Your task to perform on an android device: install app "Messenger Lite" Image 0: 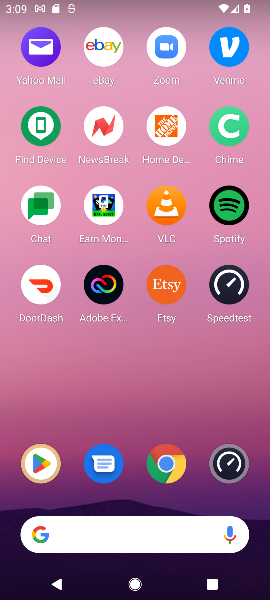
Step 0: press home button
Your task to perform on an android device: install app "Messenger Lite" Image 1: 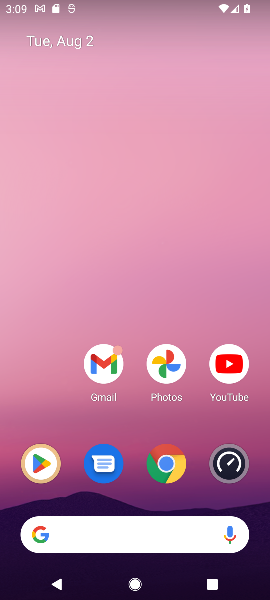
Step 1: click (38, 459)
Your task to perform on an android device: install app "Messenger Lite" Image 2: 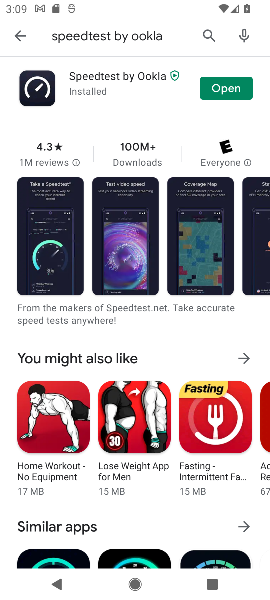
Step 2: click (206, 31)
Your task to perform on an android device: install app "Messenger Lite" Image 3: 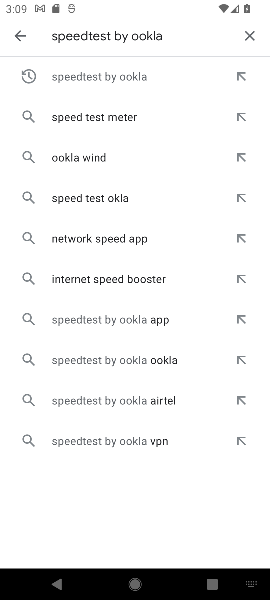
Step 3: click (245, 37)
Your task to perform on an android device: install app "Messenger Lite" Image 4: 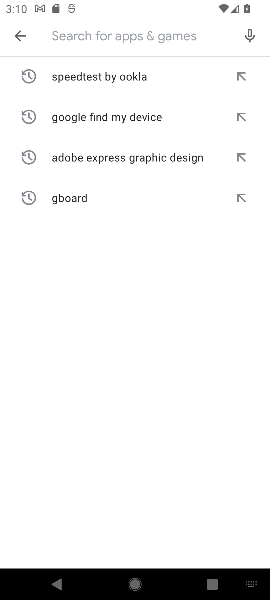
Step 4: type "Messenger Lite"
Your task to perform on an android device: install app "Messenger Lite" Image 5: 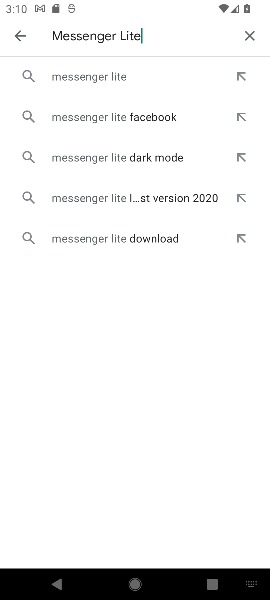
Step 5: click (83, 80)
Your task to perform on an android device: install app "Messenger Lite" Image 6: 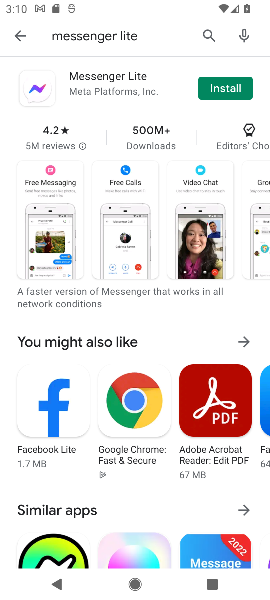
Step 6: click (234, 91)
Your task to perform on an android device: install app "Messenger Lite" Image 7: 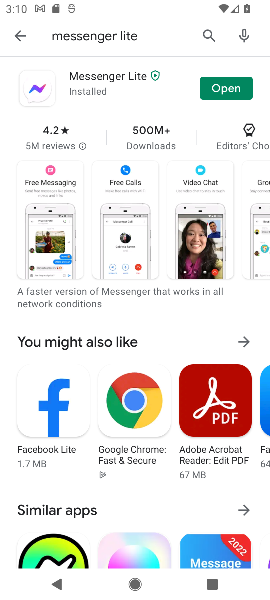
Step 7: task complete